Your task to perform on an android device: Open Reddit.com Image 0: 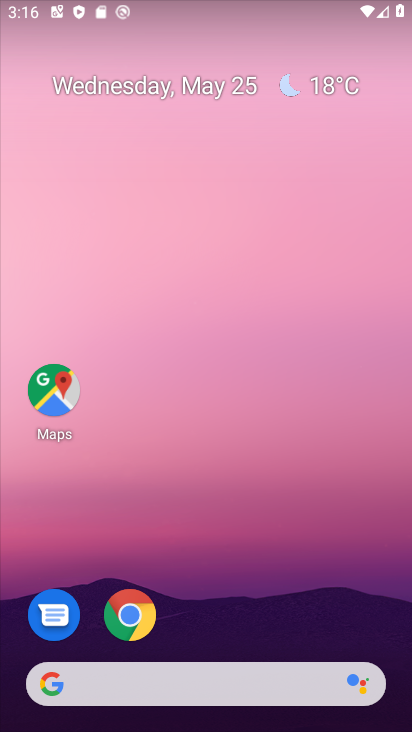
Step 0: drag from (358, 694) to (249, 301)
Your task to perform on an android device: Open Reddit.com Image 1: 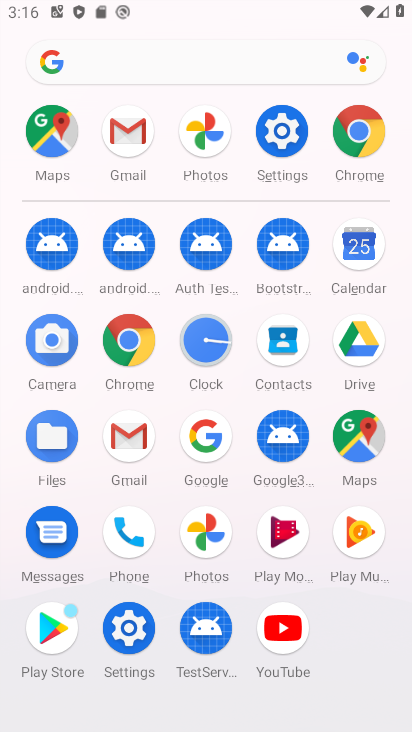
Step 1: click (351, 137)
Your task to perform on an android device: Open Reddit.com Image 2: 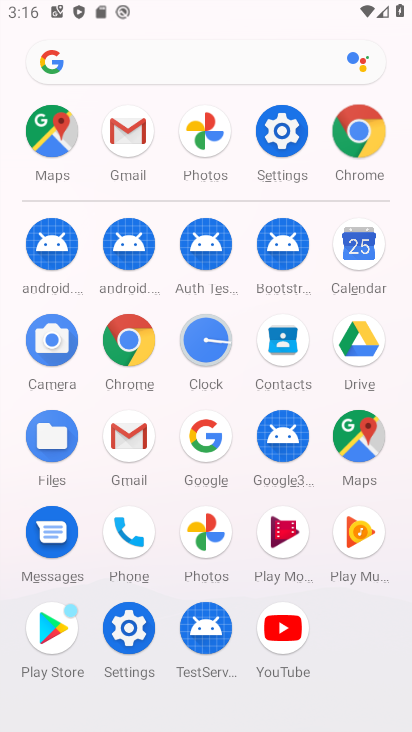
Step 2: click (346, 138)
Your task to perform on an android device: Open Reddit.com Image 3: 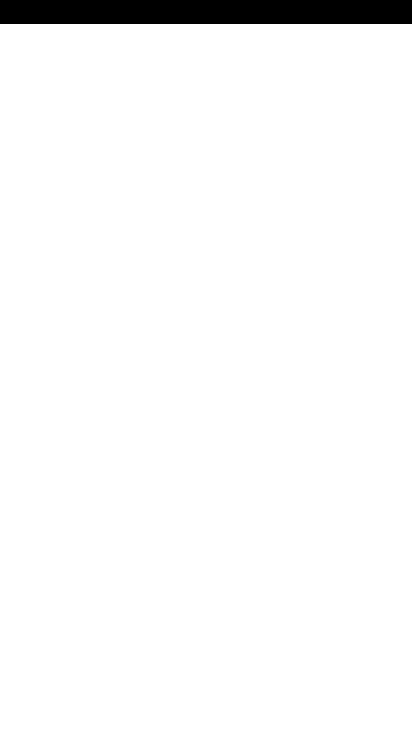
Step 3: click (342, 135)
Your task to perform on an android device: Open Reddit.com Image 4: 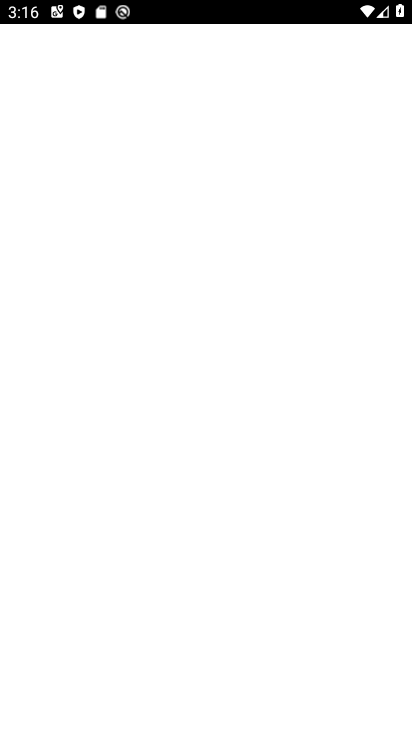
Step 4: click (338, 133)
Your task to perform on an android device: Open Reddit.com Image 5: 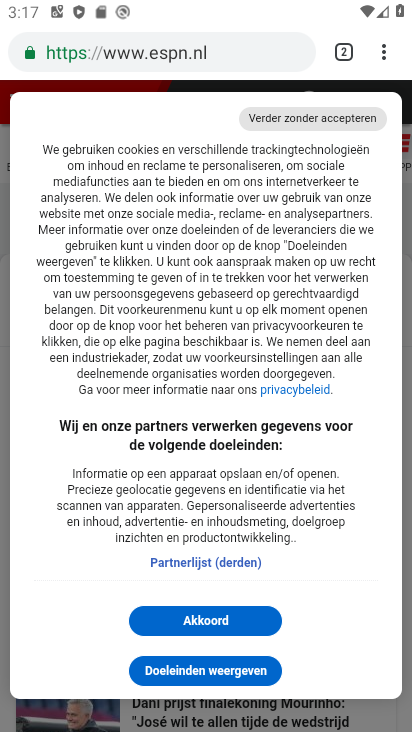
Step 5: press back button
Your task to perform on an android device: Open Reddit.com Image 6: 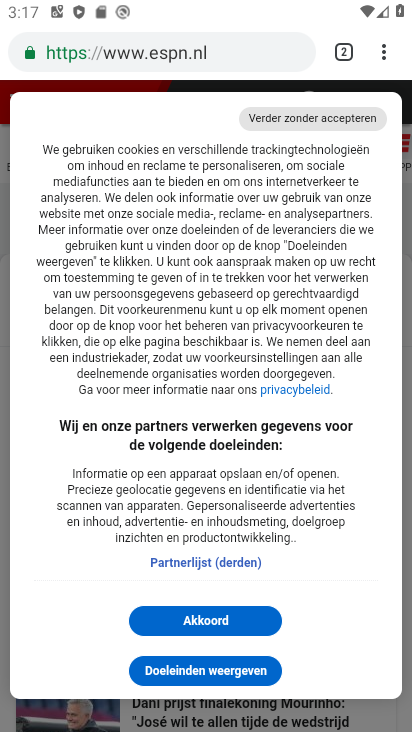
Step 6: press back button
Your task to perform on an android device: Open Reddit.com Image 7: 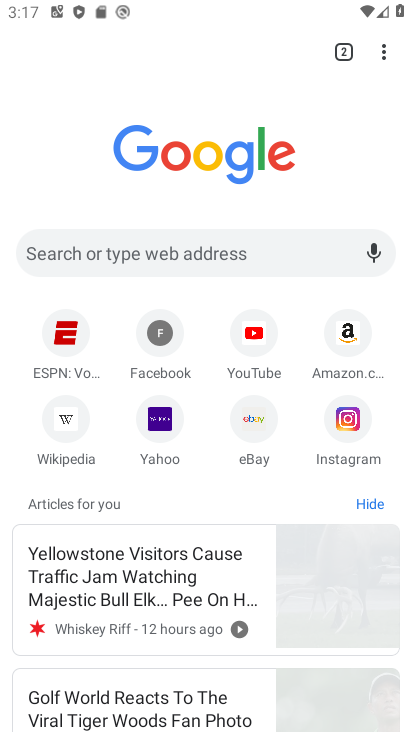
Step 7: press back button
Your task to perform on an android device: Open Reddit.com Image 8: 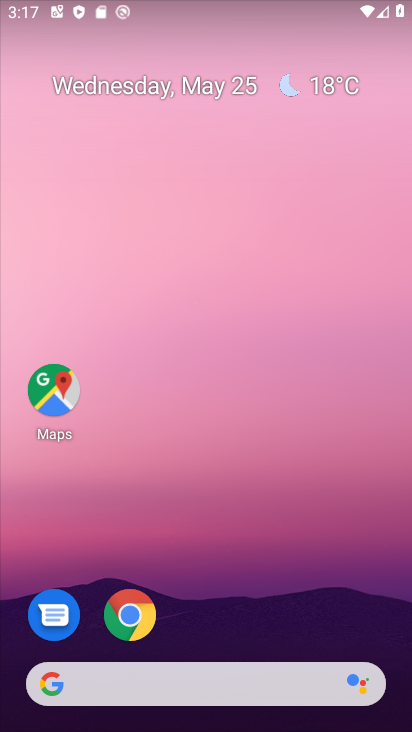
Step 8: click (67, 256)
Your task to perform on an android device: Open Reddit.com Image 9: 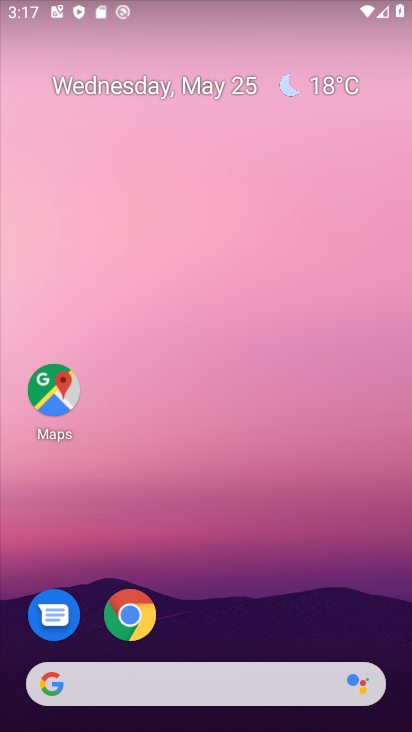
Step 9: click (70, 259)
Your task to perform on an android device: Open Reddit.com Image 10: 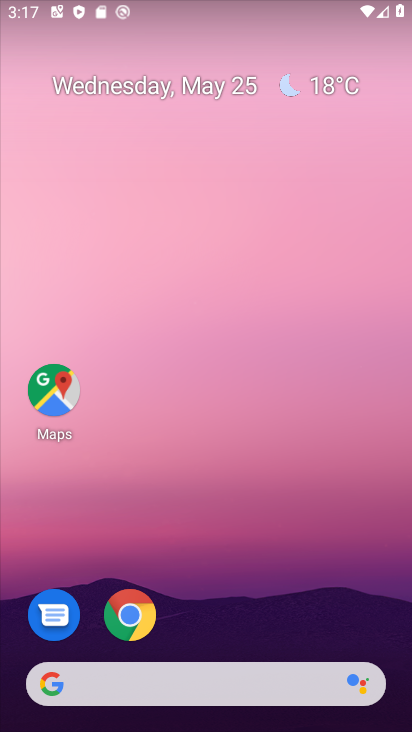
Step 10: drag from (264, 635) to (228, 270)
Your task to perform on an android device: Open Reddit.com Image 11: 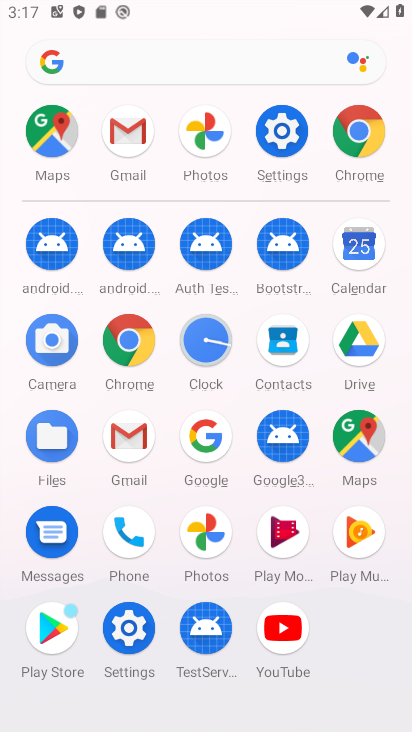
Step 11: drag from (237, 511) to (287, 264)
Your task to perform on an android device: Open Reddit.com Image 12: 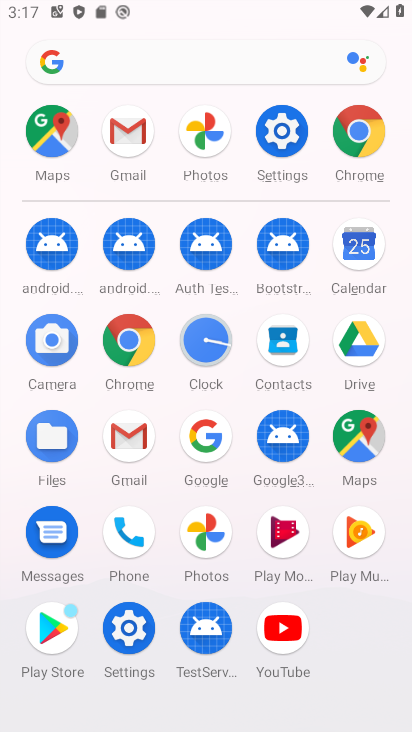
Step 12: click (352, 146)
Your task to perform on an android device: Open Reddit.com Image 13: 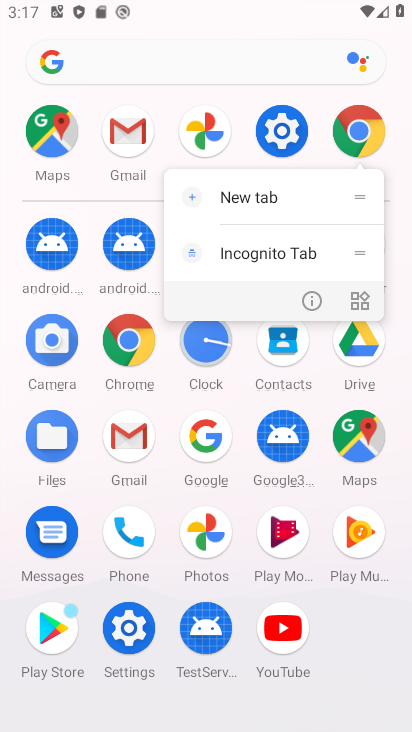
Step 13: click (349, 141)
Your task to perform on an android device: Open Reddit.com Image 14: 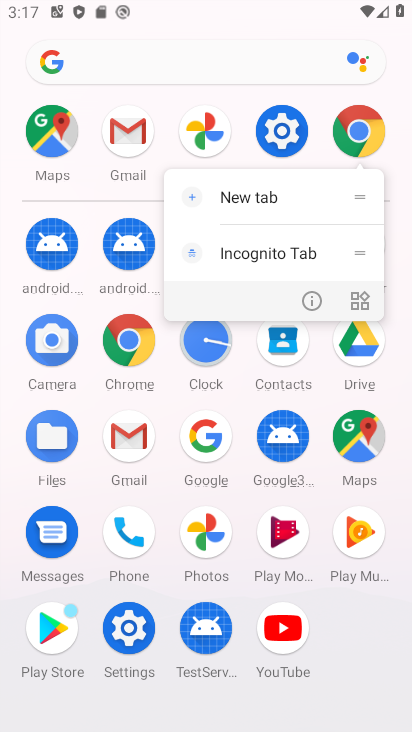
Step 14: click (361, 121)
Your task to perform on an android device: Open Reddit.com Image 15: 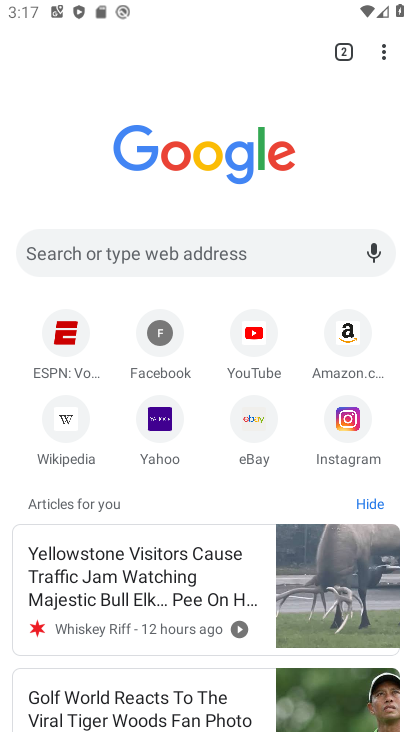
Step 15: click (71, 261)
Your task to perform on an android device: Open Reddit.com Image 16: 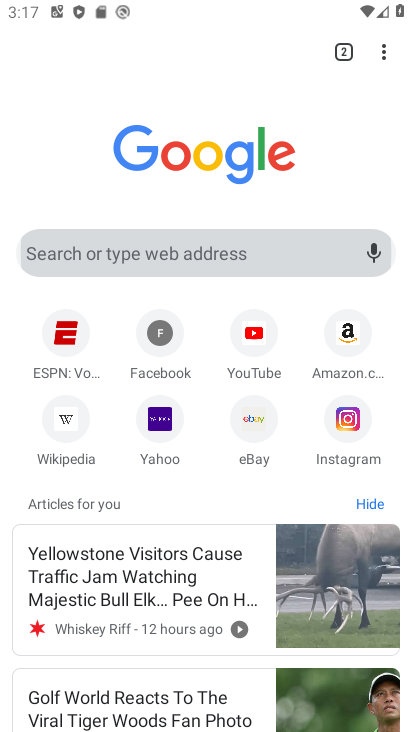
Step 16: click (58, 243)
Your task to perform on an android device: Open Reddit.com Image 17: 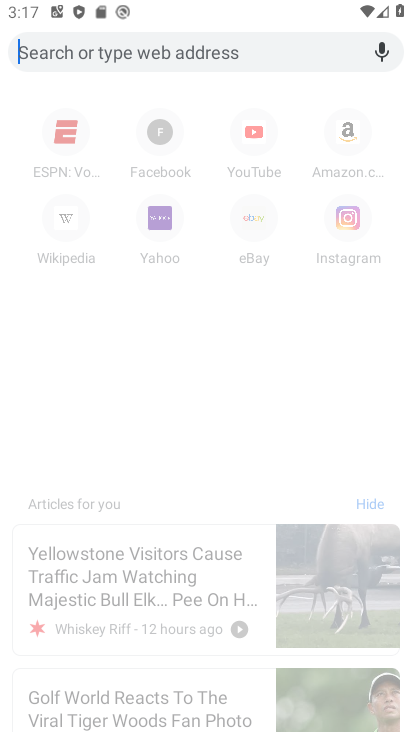
Step 17: click (59, 242)
Your task to perform on an android device: Open Reddit.com Image 18: 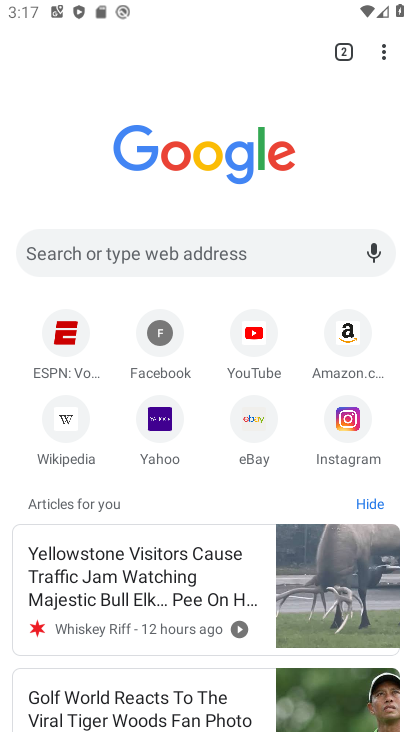
Step 18: click (25, 252)
Your task to perform on an android device: Open Reddit.com Image 19: 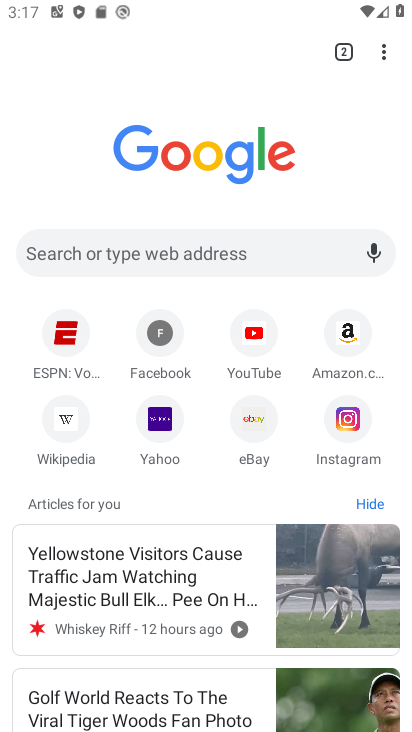
Step 19: click (34, 255)
Your task to perform on an android device: Open Reddit.com Image 20: 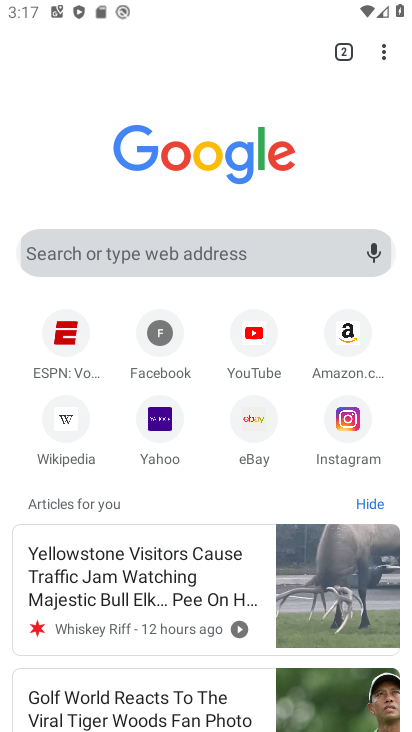
Step 20: click (43, 258)
Your task to perform on an android device: Open Reddit.com Image 21: 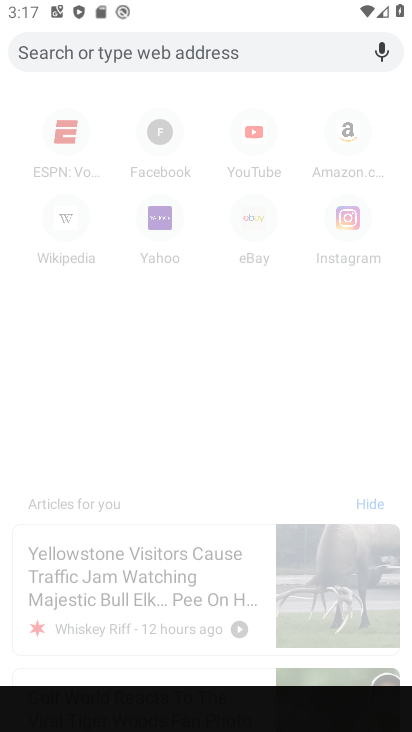
Step 21: click (50, 258)
Your task to perform on an android device: Open Reddit.com Image 22: 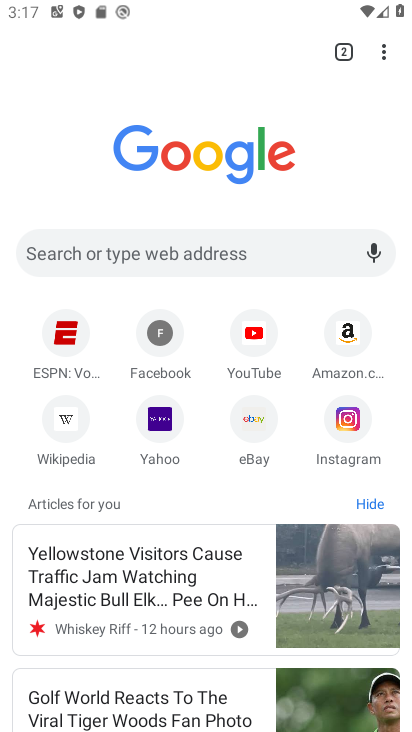
Step 22: type "reddit.com"
Your task to perform on an android device: Open Reddit.com Image 23: 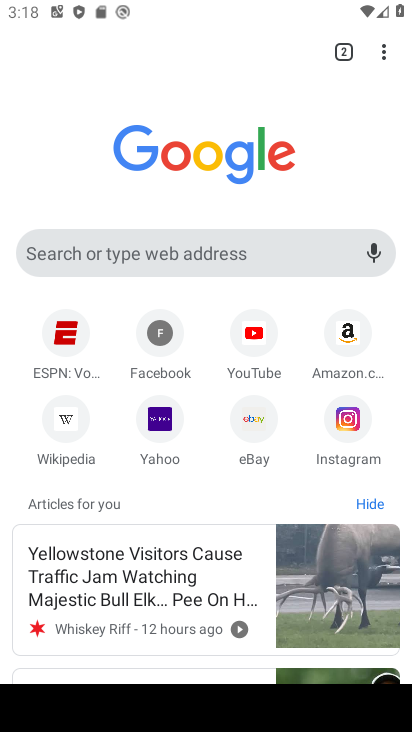
Step 23: task complete